Your task to perform on an android device: Open sound settings Image 0: 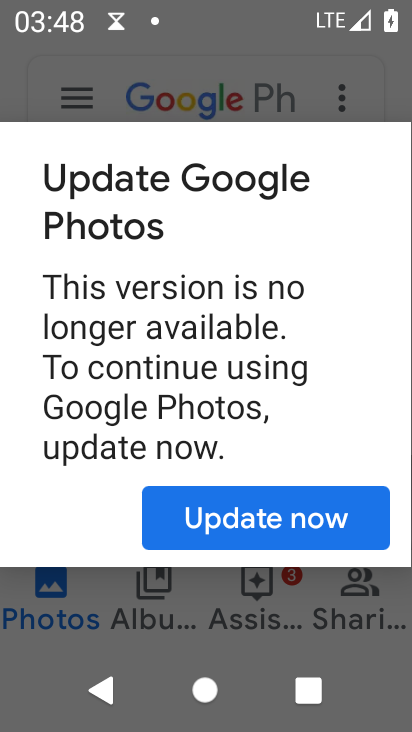
Step 0: press home button
Your task to perform on an android device: Open sound settings Image 1: 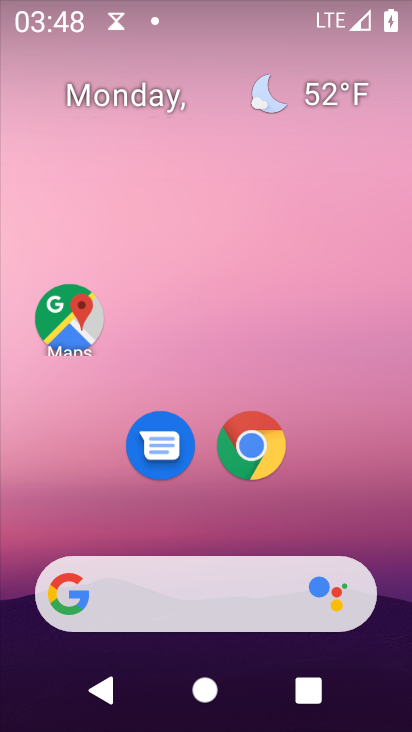
Step 1: drag from (183, 549) to (213, 0)
Your task to perform on an android device: Open sound settings Image 2: 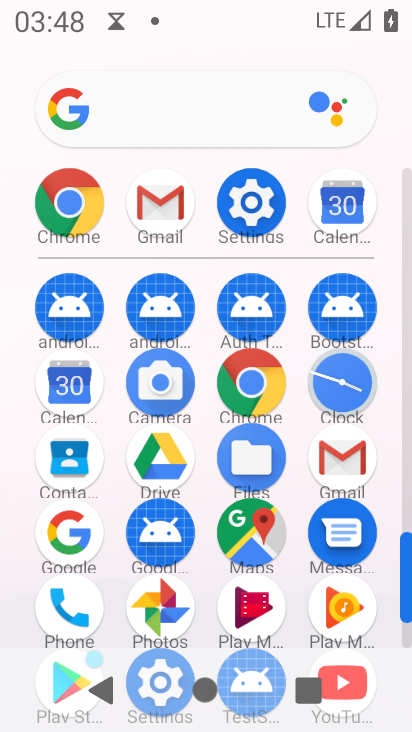
Step 2: click (240, 225)
Your task to perform on an android device: Open sound settings Image 3: 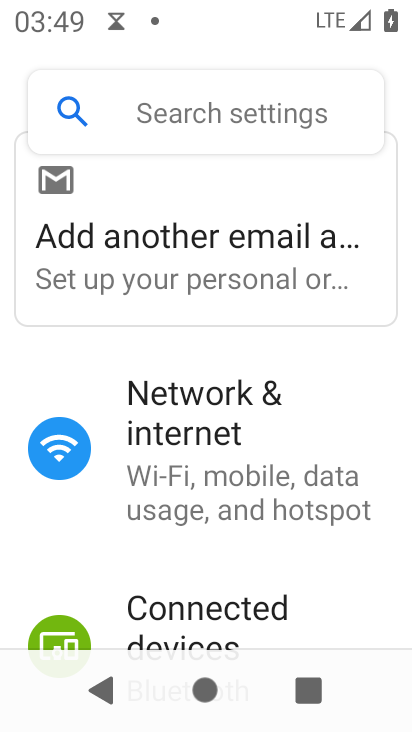
Step 3: drag from (207, 580) to (258, 59)
Your task to perform on an android device: Open sound settings Image 4: 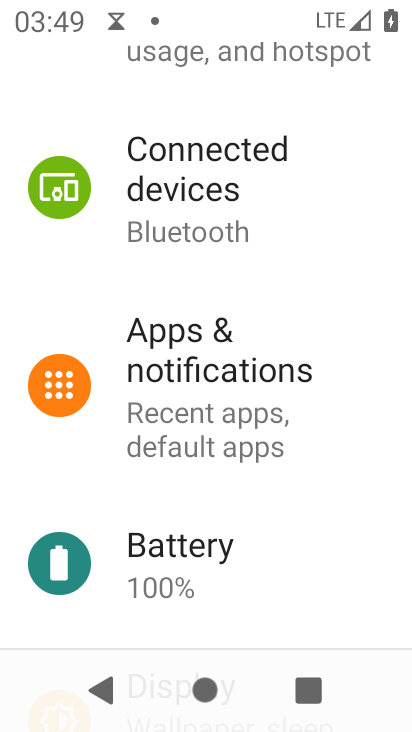
Step 4: drag from (204, 458) to (233, 188)
Your task to perform on an android device: Open sound settings Image 5: 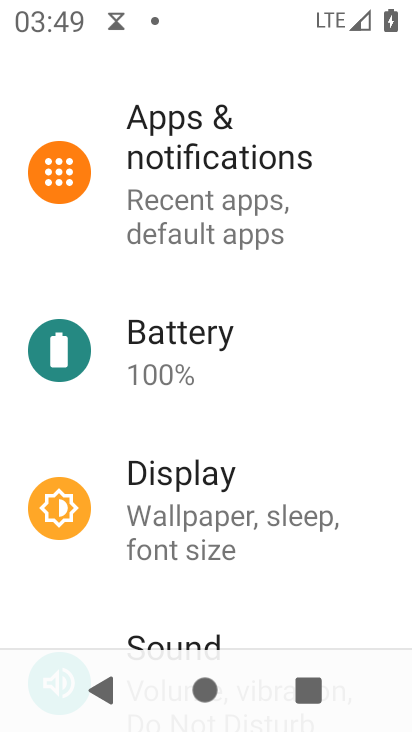
Step 5: drag from (190, 538) to (237, 141)
Your task to perform on an android device: Open sound settings Image 6: 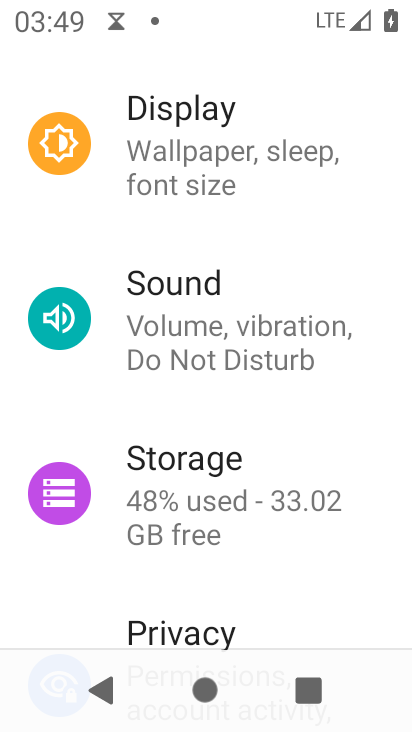
Step 6: click (184, 345)
Your task to perform on an android device: Open sound settings Image 7: 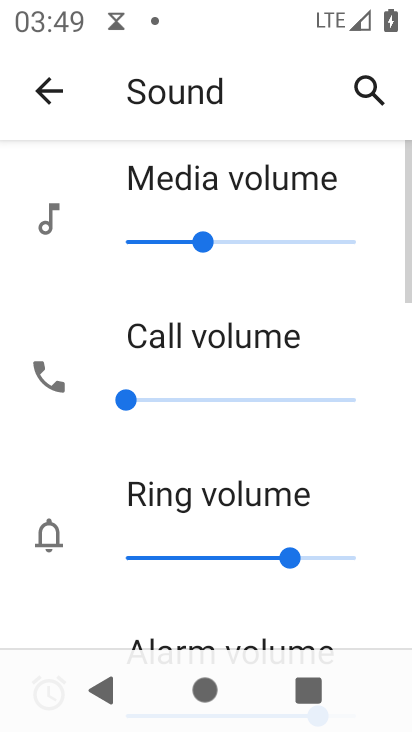
Step 7: task complete